Your task to perform on an android device: Open display settings Image 0: 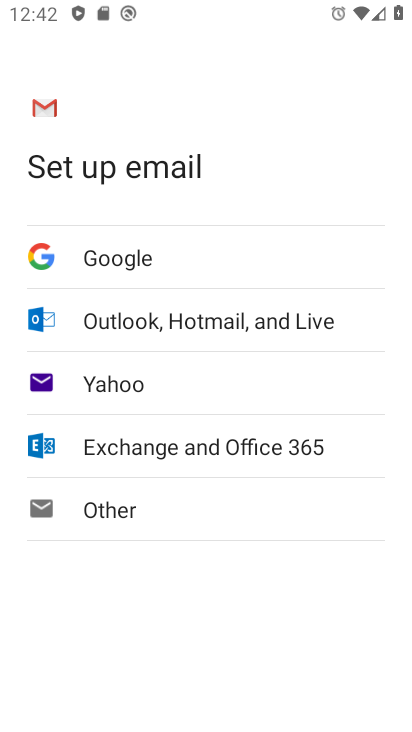
Step 0: press home button
Your task to perform on an android device: Open display settings Image 1: 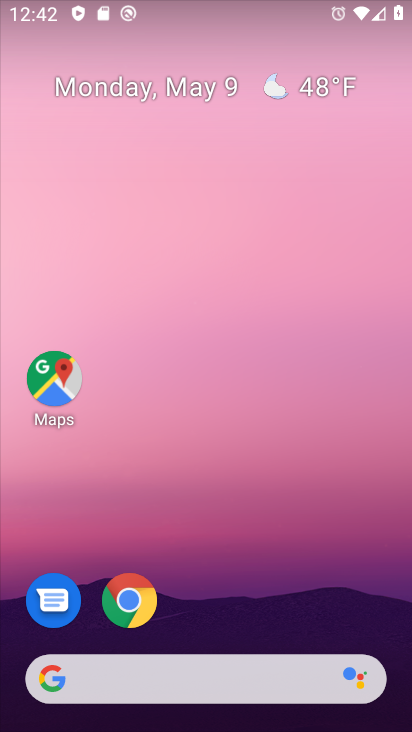
Step 1: drag from (159, 585) to (165, 365)
Your task to perform on an android device: Open display settings Image 2: 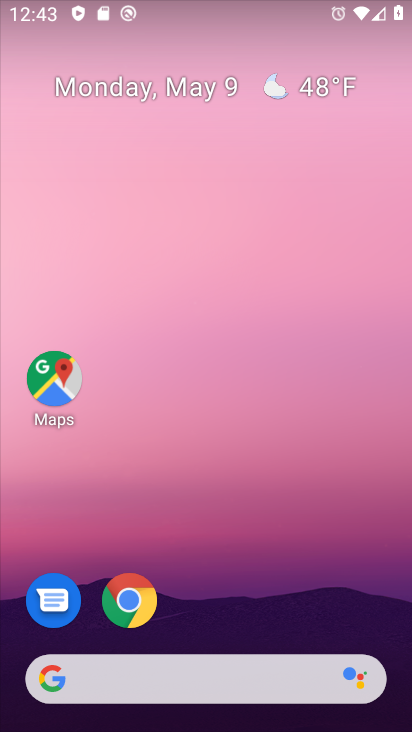
Step 2: drag from (162, 531) to (235, 0)
Your task to perform on an android device: Open display settings Image 3: 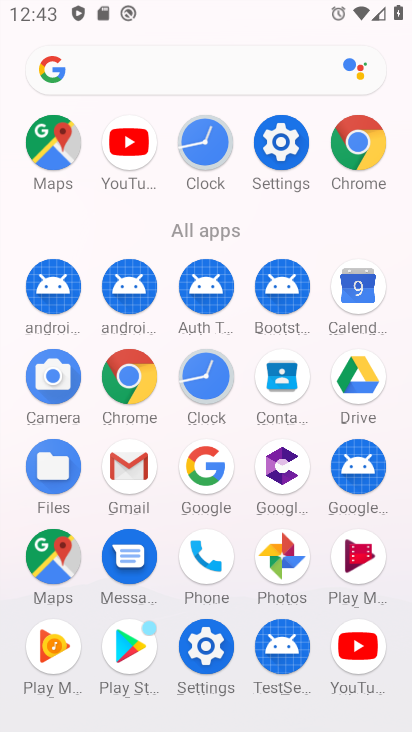
Step 3: click (277, 137)
Your task to perform on an android device: Open display settings Image 4: 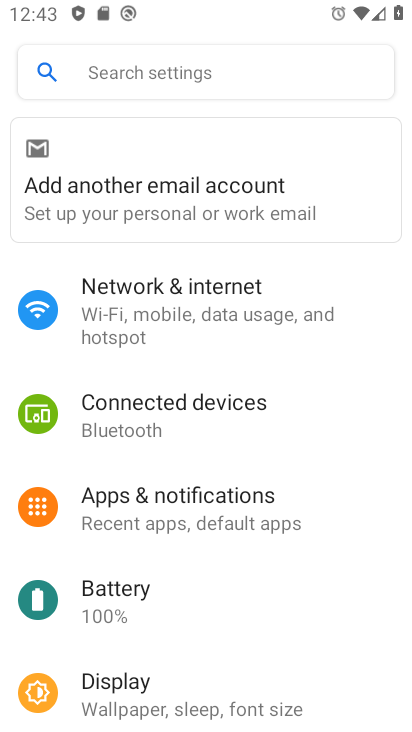
Step 4: click (135, 685)
Your task to perform on an android device: Open display settings Image 5: 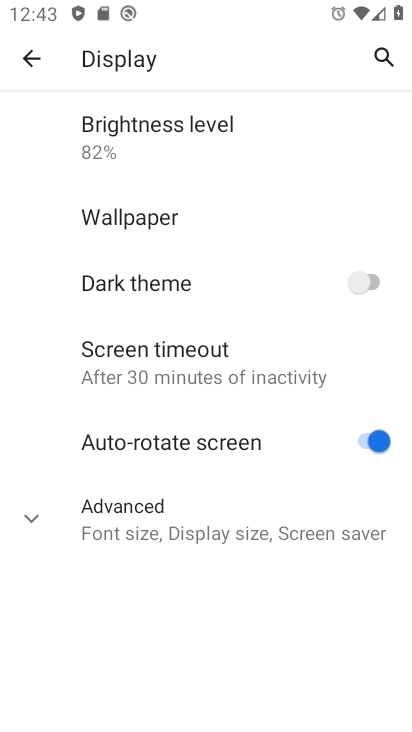
Step 5: task complete